Your task to perform on an android device: Play the last video I watched on Youtube Image 0: 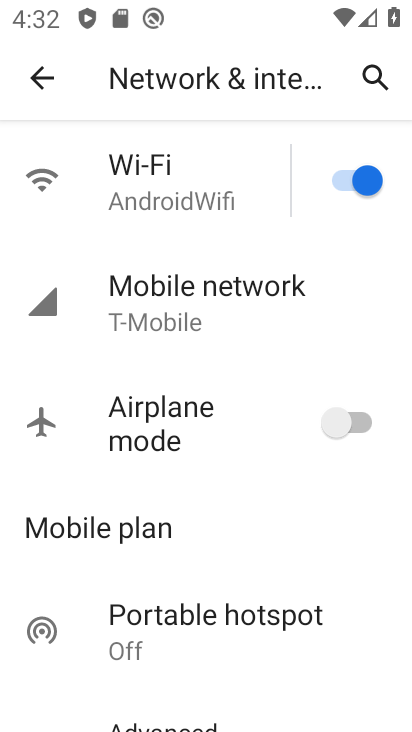
Step 0: press home button
Your task to perform on an android device: Play the last video I watched on Youtube Image 1: 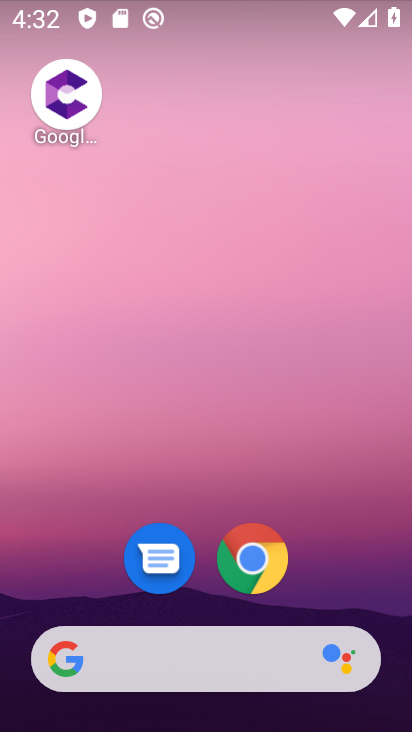
Step 1: drag from (386, 609) to (279, 48)
Your task to perform on an android device: Play the last video I watched on Youtube Image 2: 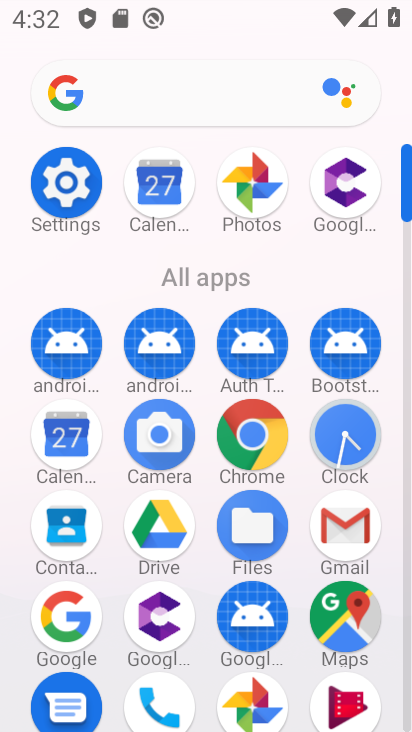
Step 2: click (403, 718)
Your task to perform on an android device: Play the last video I watched on Youtube Image 3: 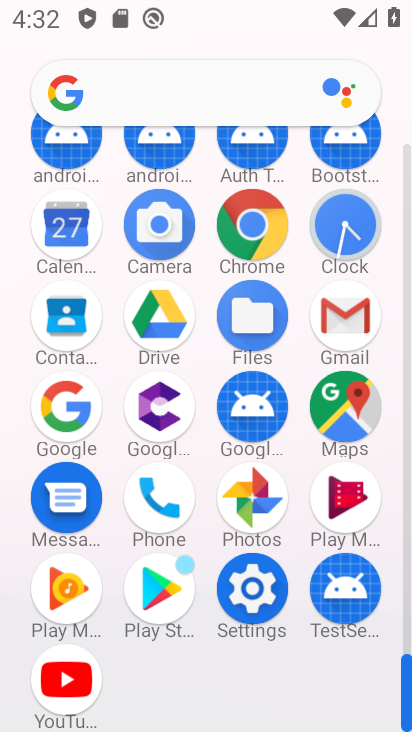
Step 3: click (84, 686)
Your task to perform on an android device: Play the last video I watched on Youtube Image 4: 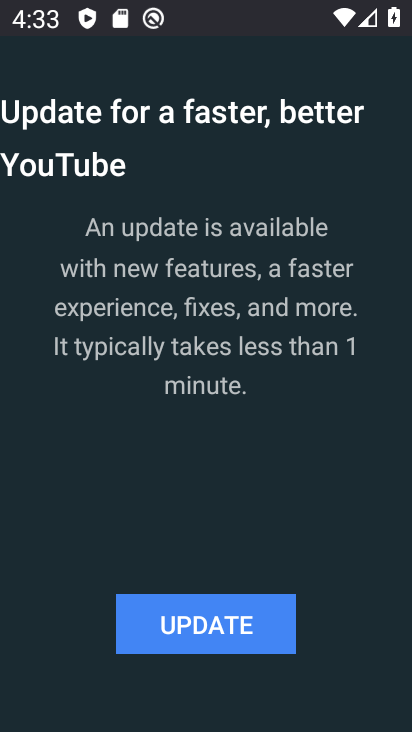
Step 4: click (227, 619)
Your task to perform on an android device: Play the last video I watched on Youtube Image 5: 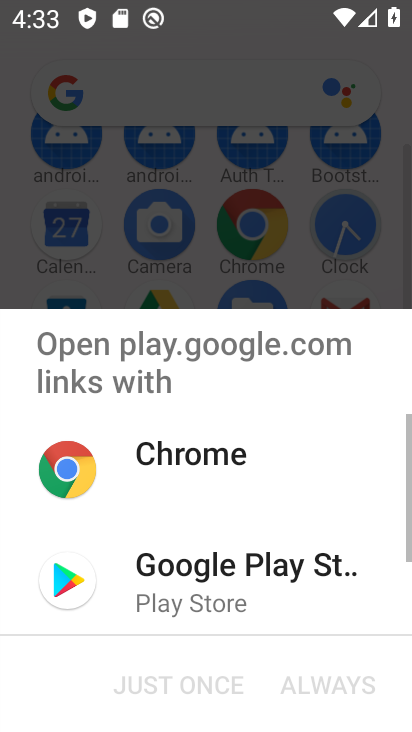
Step 5: click (265, 580)
Your task to perform on an android device: Play the last video I watched on Youtube Image 6: 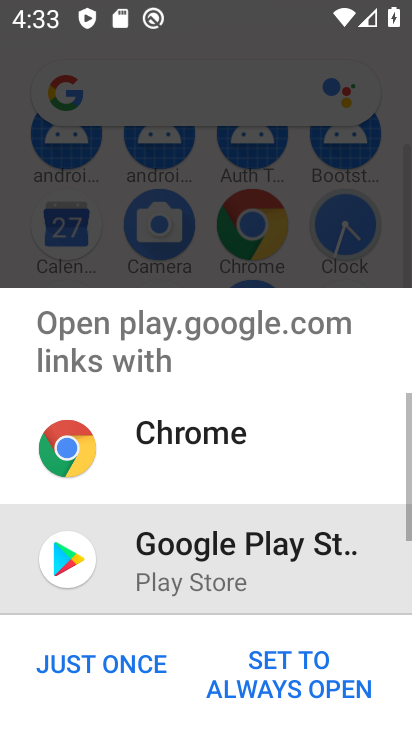
Step 6: click (145, 669)
Your task to perform on an android device: Play the last video I watched on Youtube Image 7: 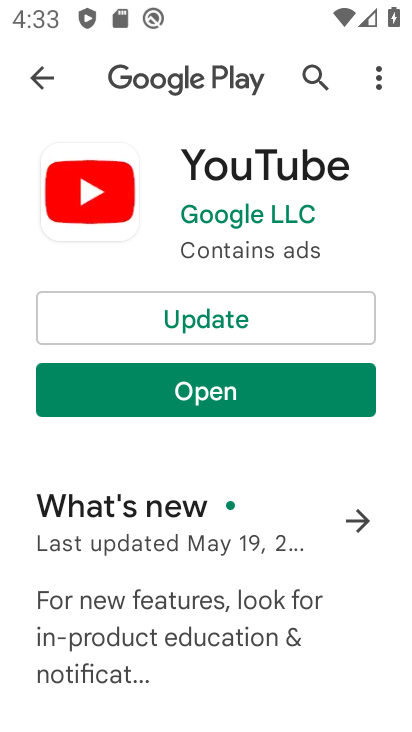
Step 7: click (237, 325)
Your task to perform on an android device: Play the last video I watched on Youtube Image 8: 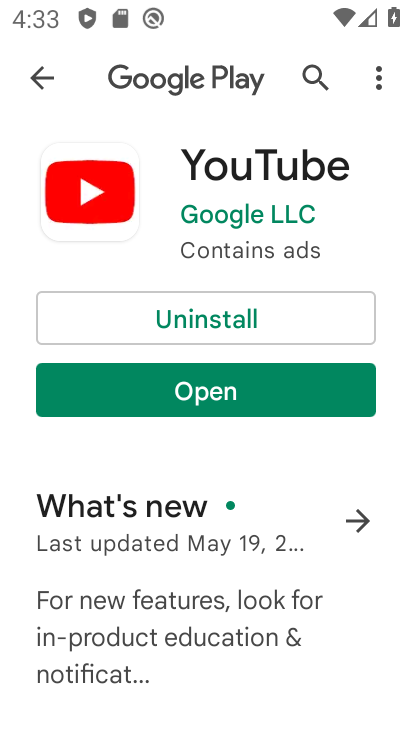
Step 8: click (243, 389)
Your task to perform on an android device: Play the last video I watched on Youtube Image 9: 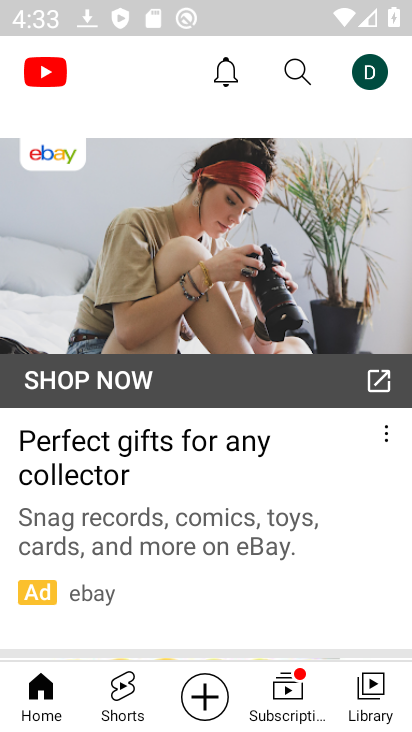
Step 9: click (376, 692)
Your task to perform on an android device: Play the last video I watched on Youtube Image 10: 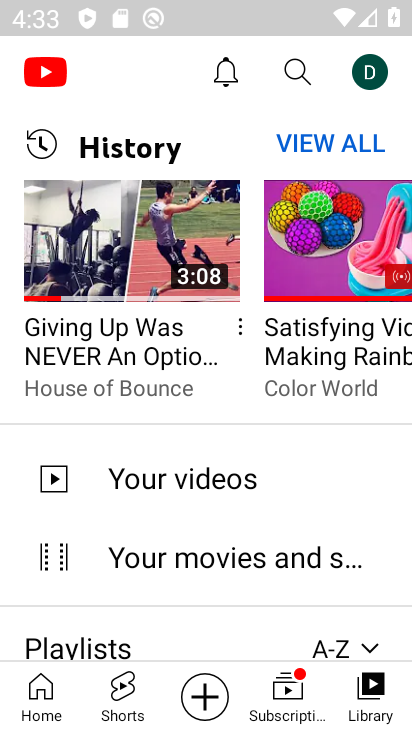
Step 10: click (148, 259)
Your task to perform on an android device: Play the last video I watched on Youtube Image 11: 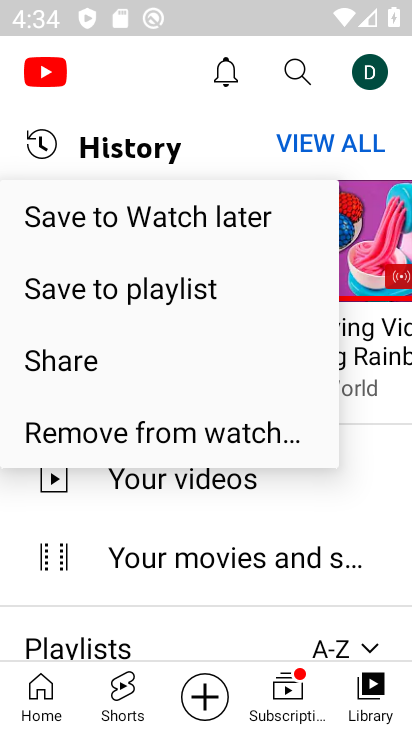
Step 11: click (386, 422)
Your task to perform on an android device: Play the last video I watched on Youtube Image 12: 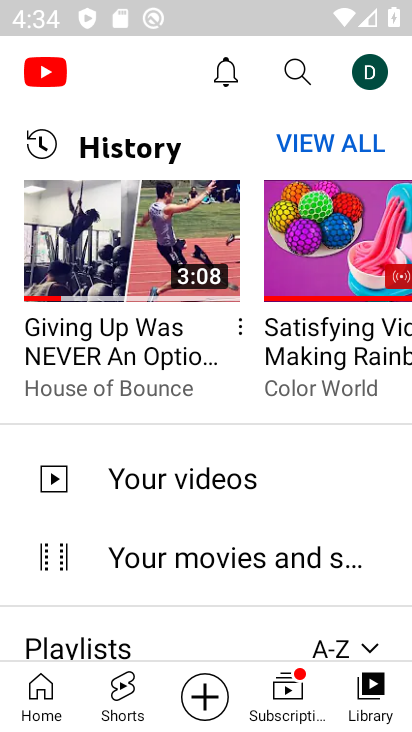
Step 12: click (174, 206)
Your task to perform on an android device: Play the last video I watched on Youtube Image 13: 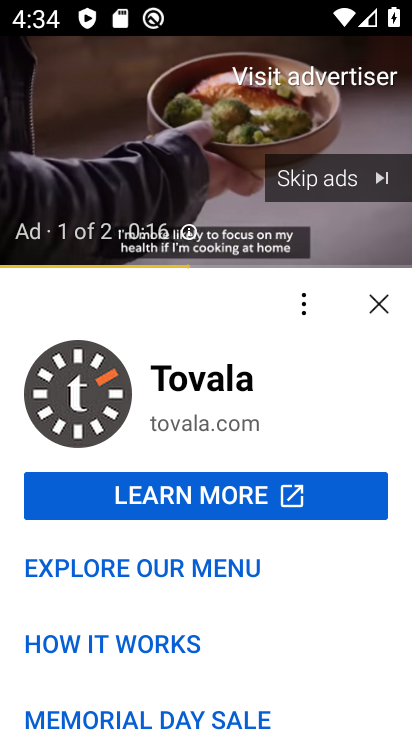
Step 13: task complete